Your task to perform on an android device: find which apps use the phone's location Image 0: 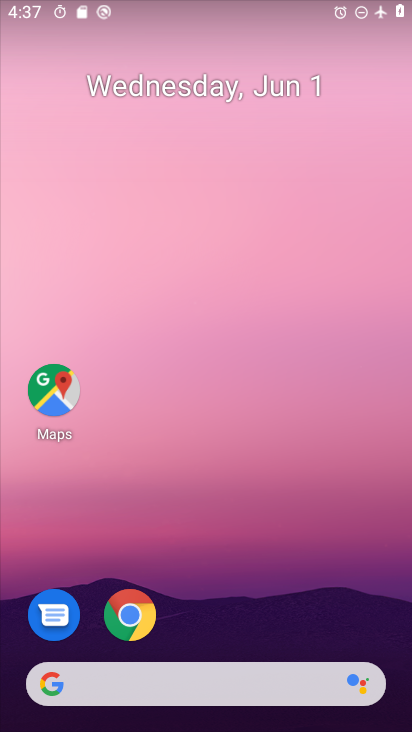
Step 0: drag from (319, 653) to (291, 147)
Your task to perform on an android device: find which apps use the phone's location Image 1: 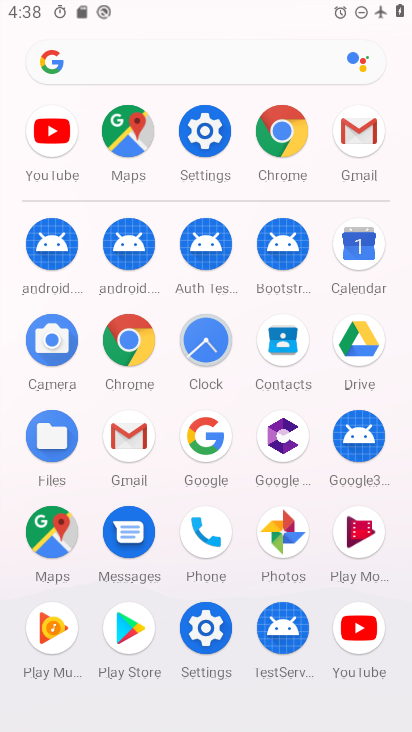
Step 1: click (208, 133)
Your task to perform on an android device: find which apps use the phone's location Image 2: 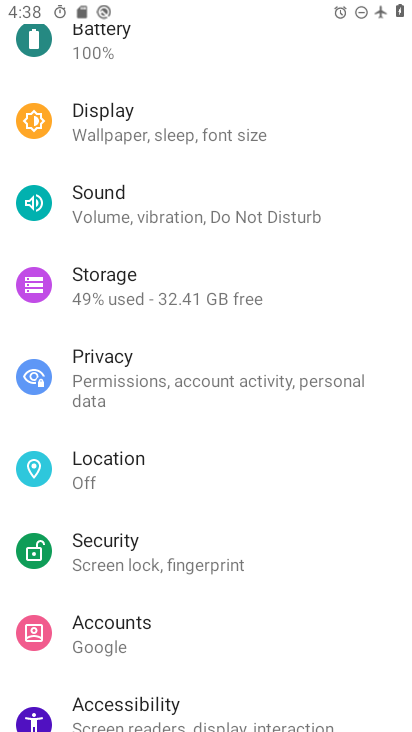
Step 2: click (140, 461)
Your task to perform on an android device: find which apps use the phone's location Image 3: 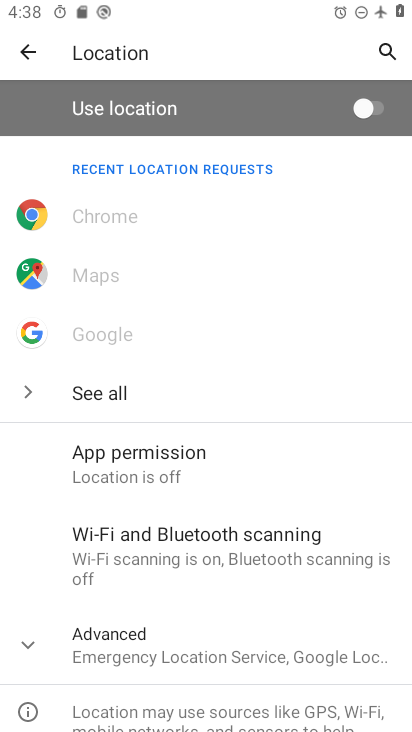
Step 3: click (201, 464)
Your task to perform on an android device: find which apps use the phone's location Image 4: 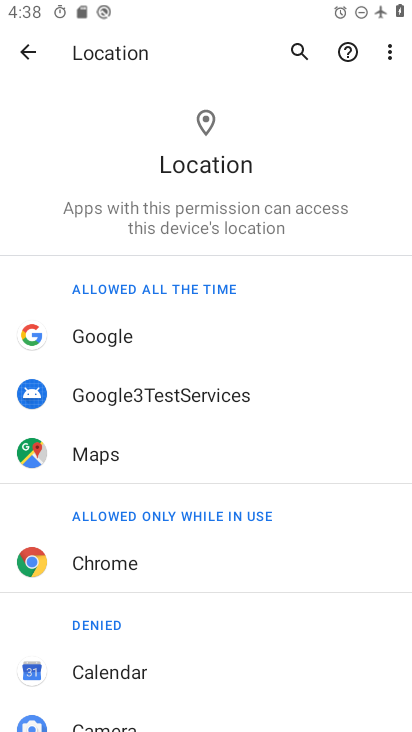
Step 4: drag from (249, 469) to (268, 326)
Your task to perform on an android device: find which apps use the phone's location Image 5: 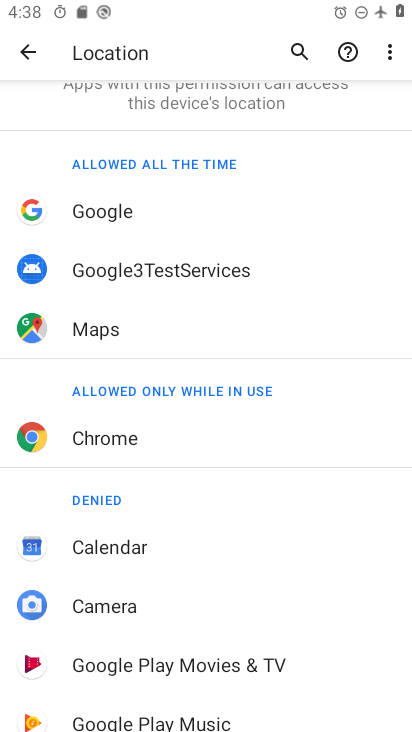
Step 5: click (145, 228)
Your task to perform on an android device: find which apps use the phone's location Image 6: 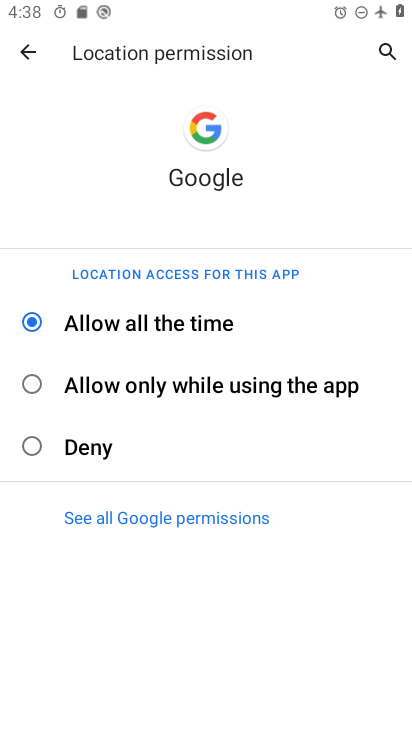
Step 6: task complete